Your task to perform on an android device: Search for seafood restaurants on Google Maps Image 0: 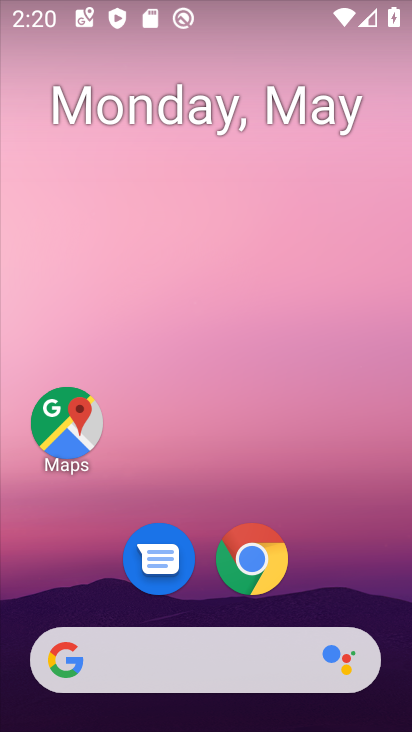
Step 0: click (71, 420)
Your task to perform on an android device: Search for seafood restaurants on Google Maps Image 1: 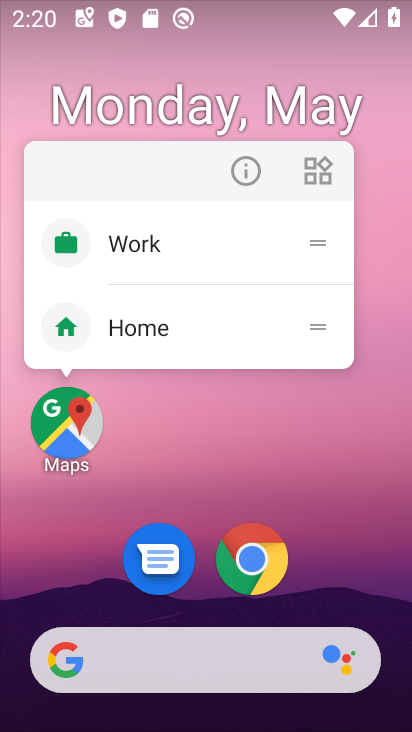
Step 1: click (69, 442)
Your task to perform on an android device: Search for seafood restaurants on Google Maps Image 2: 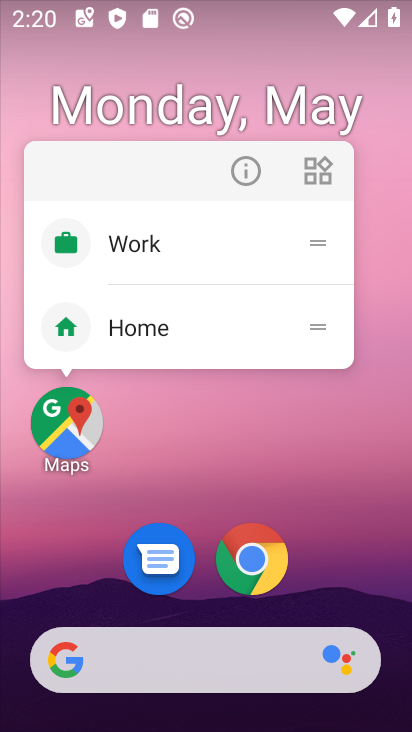
Step 2: click (70, 435)
Your task to perform on an android device: Search for seafood restaurants on Google Maps Image 3: 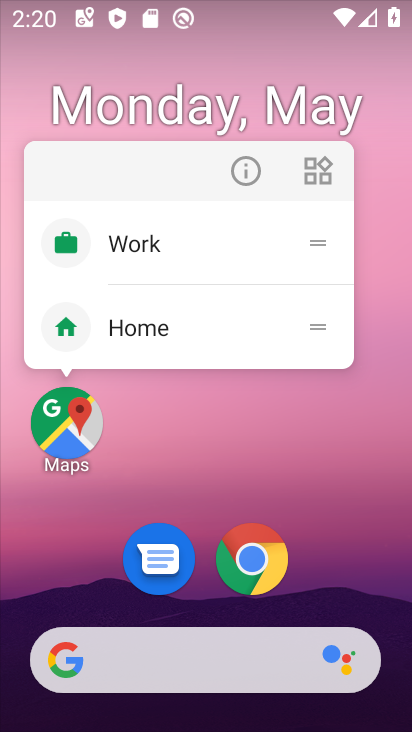
Step 3: click (70, 435)
Your task to perform on an android device: Search for seafood restaurants on Google Maps Image 4: 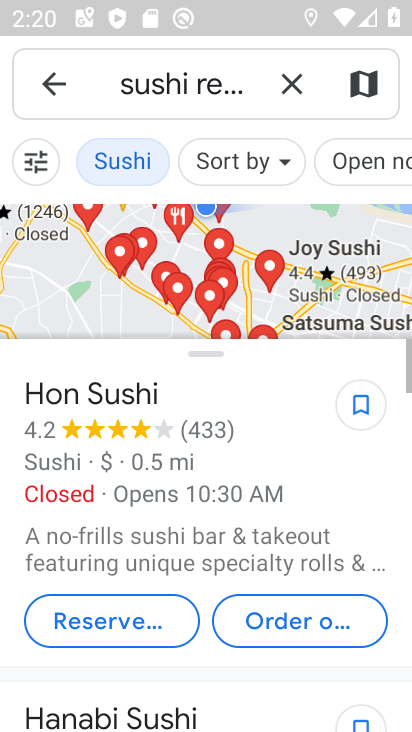
Step 4: click (292, 107)
Your task to perform on an android device: Search for seafood restaurants on Google Maps Image 5: 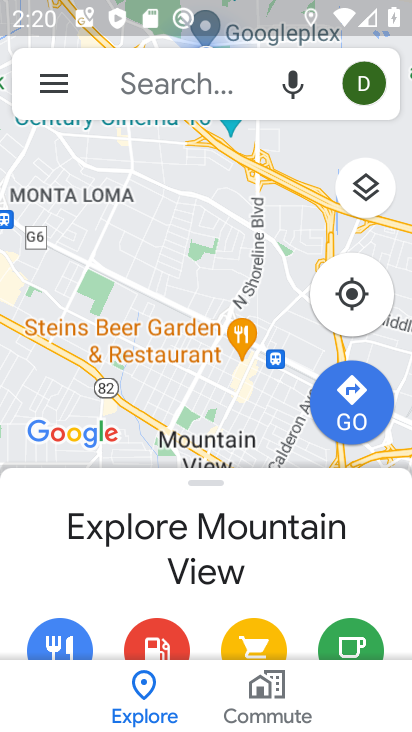
Step 5: click (134, 80)
Your task to perform on an android device: Search for seafood restaurants on Google Maps Image 6: 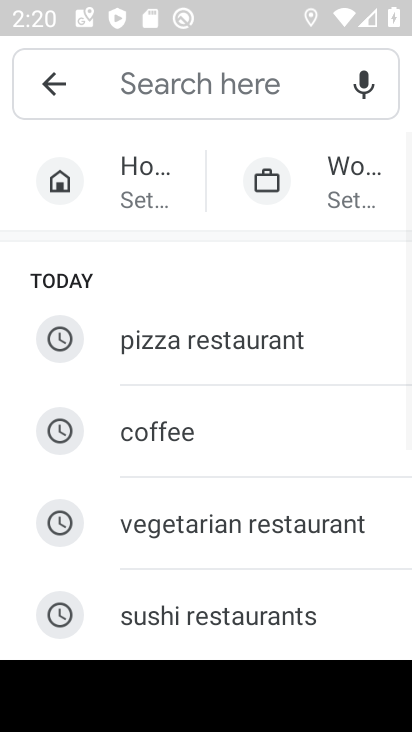
Step 6: drag from (263, 596) to (297, 131)
Your task to perform on an android device: Search for seafood restaurants on Google Maps Image 7: 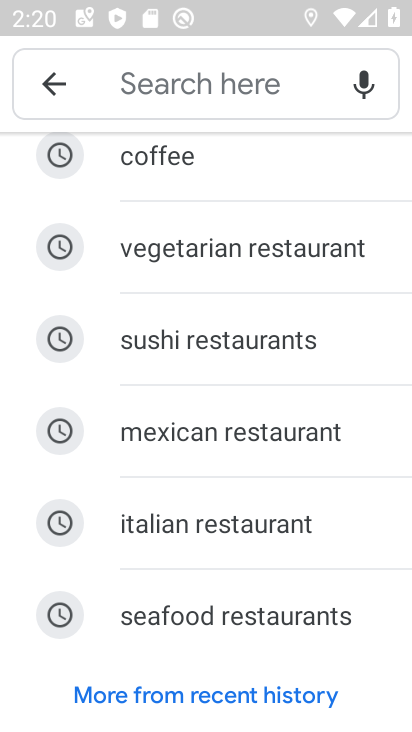
Step 7: click (225, 612)
Your task to perform on an android device: Search for seafood restaurants on Google Maps Image 8: 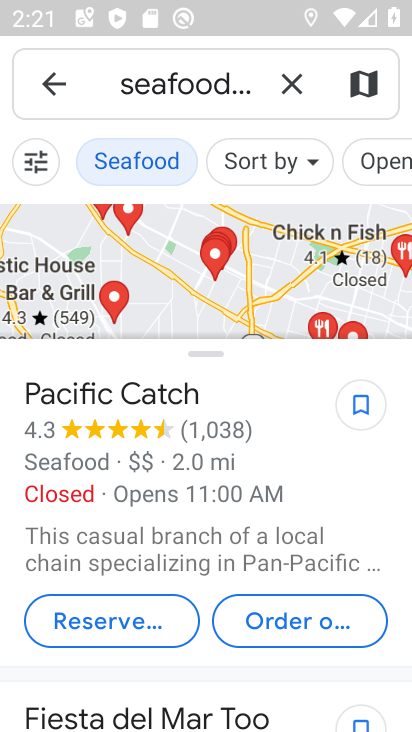
Step 8: task complete